Your task to perform on an android device: turn off location history Image 0: 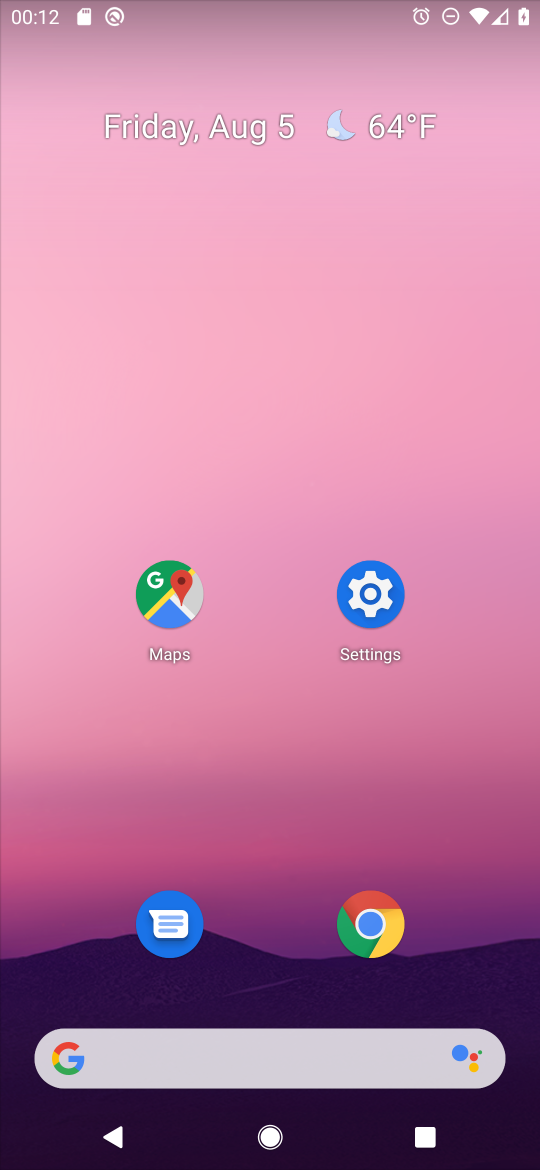
Step 0: click (185, 587)
Your task to perform on an android device: turn off location history Image 1: 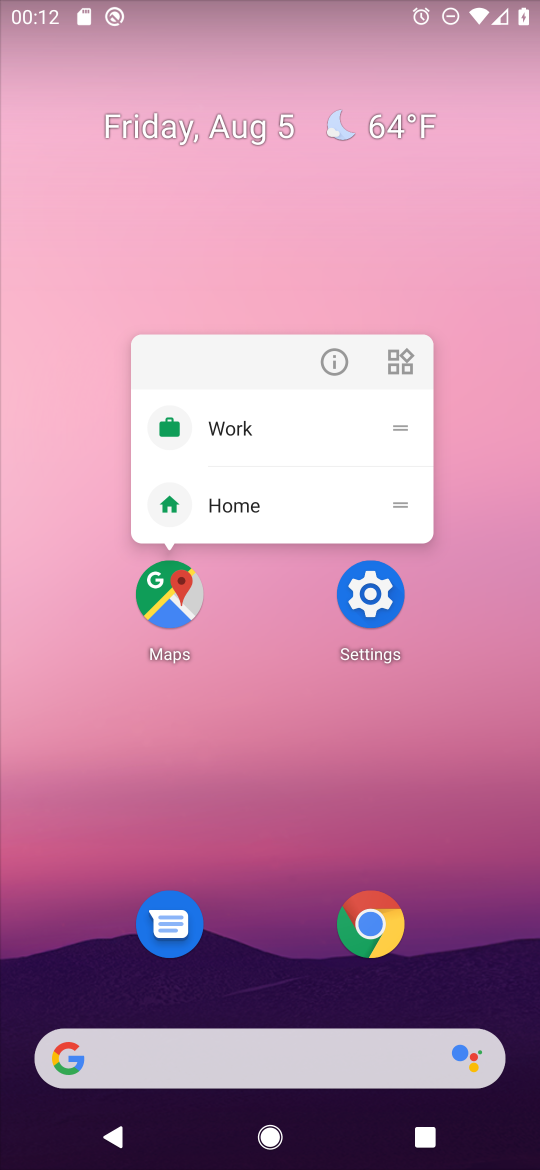
Step 1: click (173, 594)
Your task to perform on an android device: turn off location history Image 2: 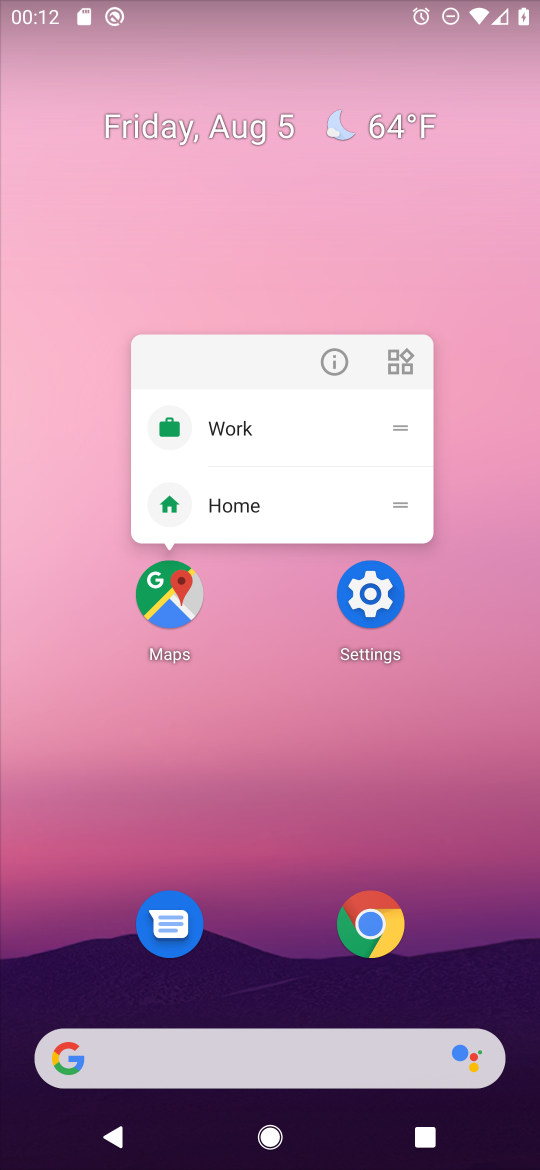
Step 2: click (171, 592)
Your task to perform on an android device: turn off location history Image 3: 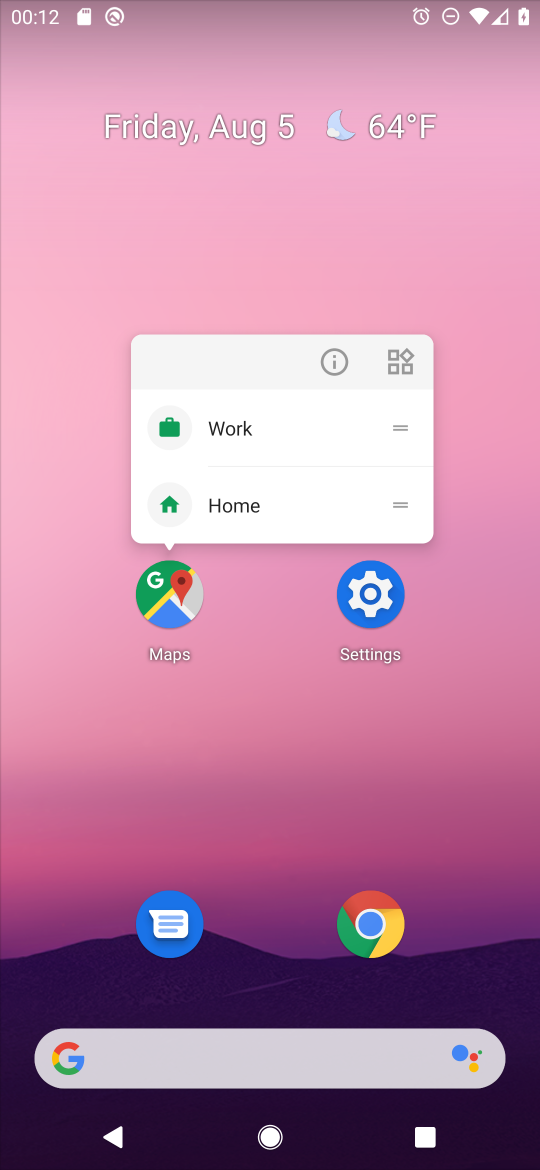
Step 3: click (171, 594)
Your task to perform on an android device: turn off location history Image 4: 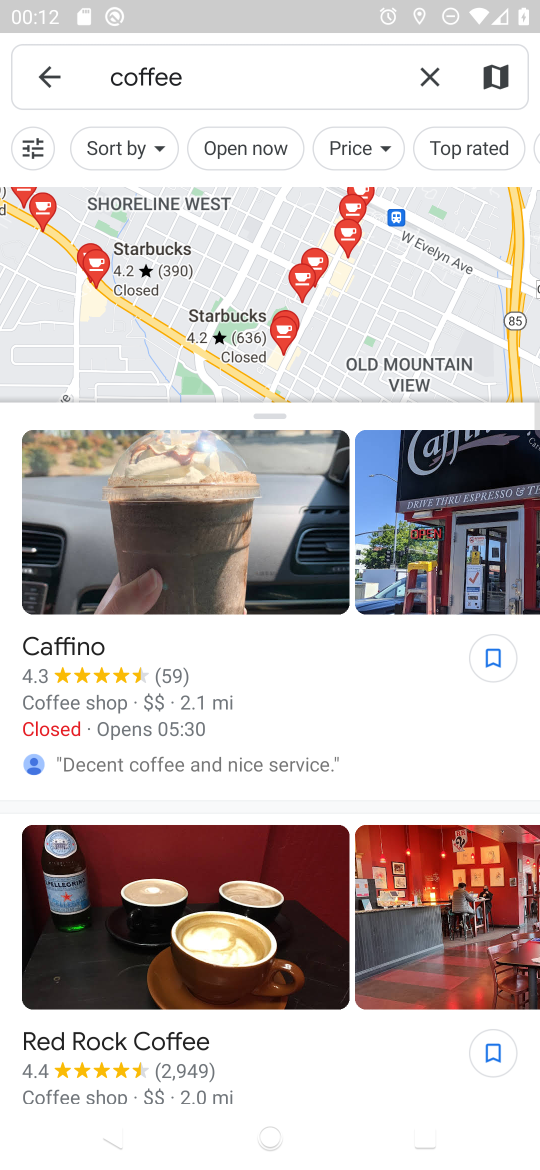
Step 4: click (51, 78)
Your task to perform on an android device: turn off location history Image 5: 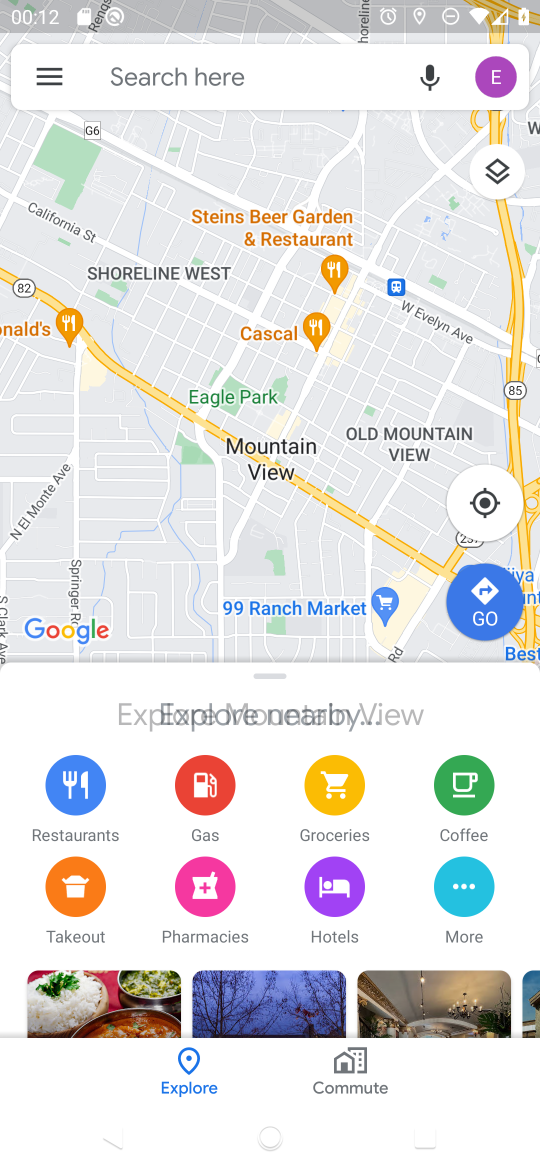
Step 5: click (51, 79)
Your task to perform on an android device: turn off location history Image 6: 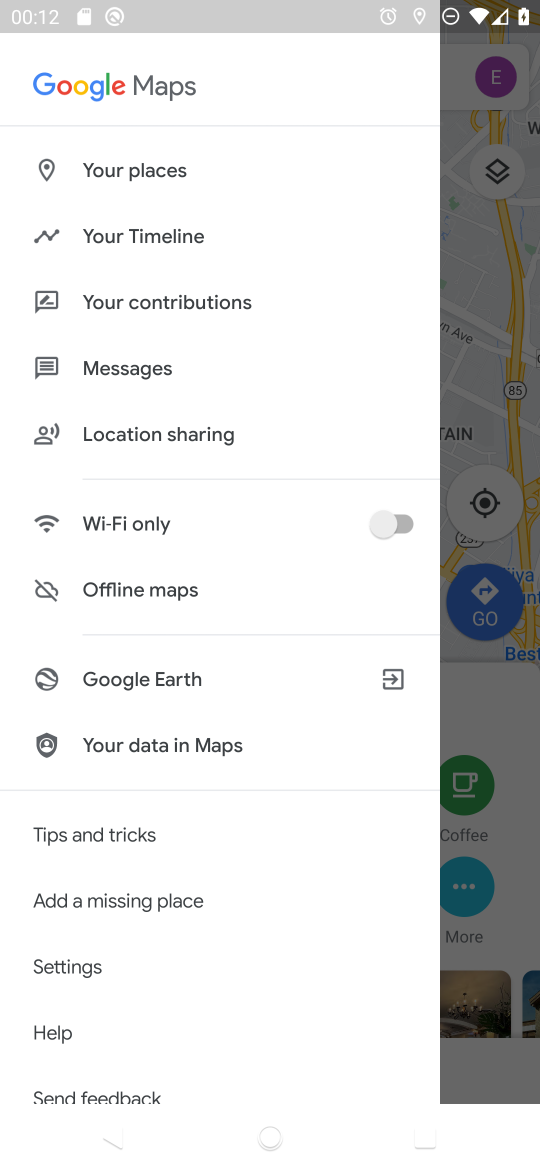
Step 6: click (143, 234)
Your task to perform on an android device: turn off location history Image 7: 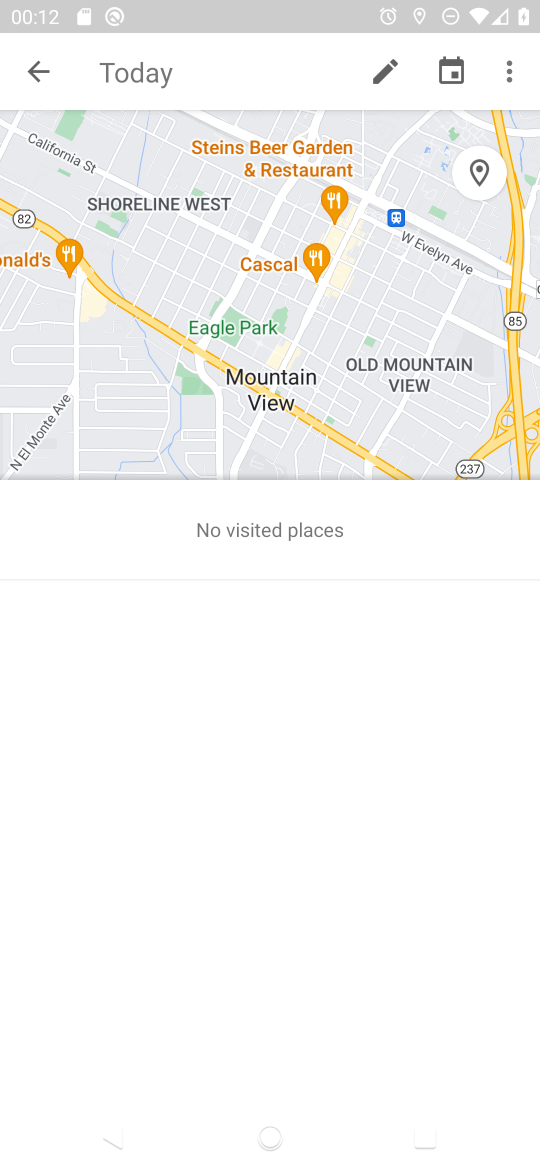
Step 7: click (514, 76)
Your task to perform on an android device: turn off location history Image 8: 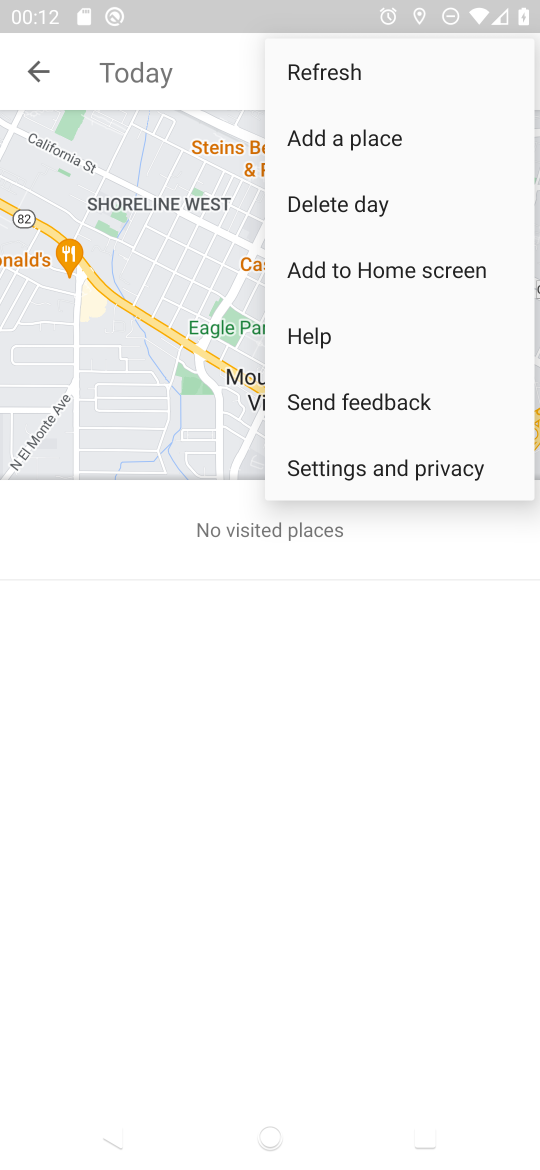
Step 8: click (316, 472)
Your task to perform on an android device: turn off location history Image 9: 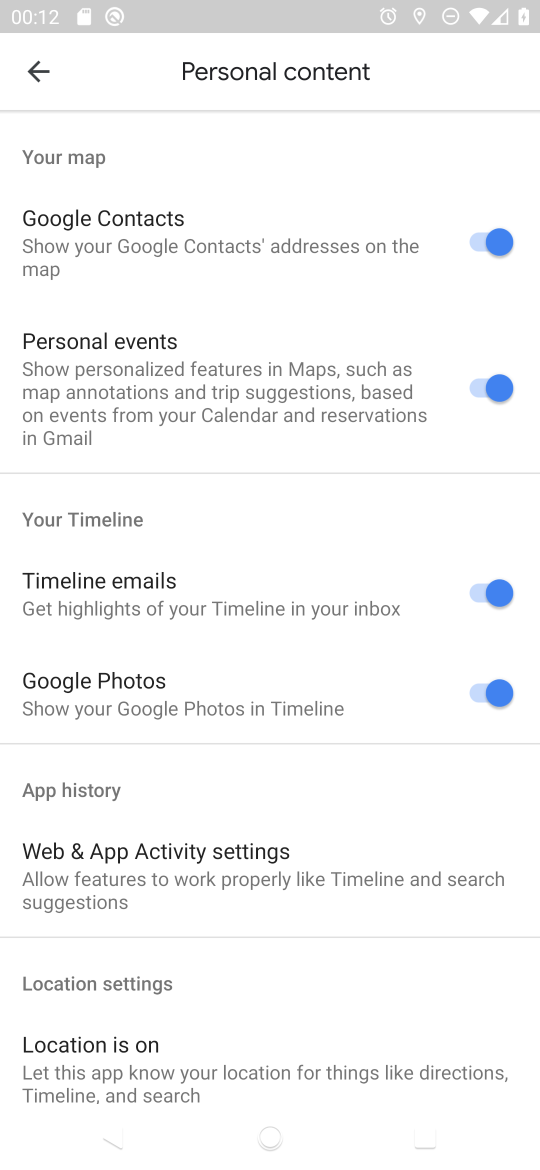
Step 9: drag from (195, 797) to (415, 288)
Your task to perform on an android device: turn off location history Image 10: 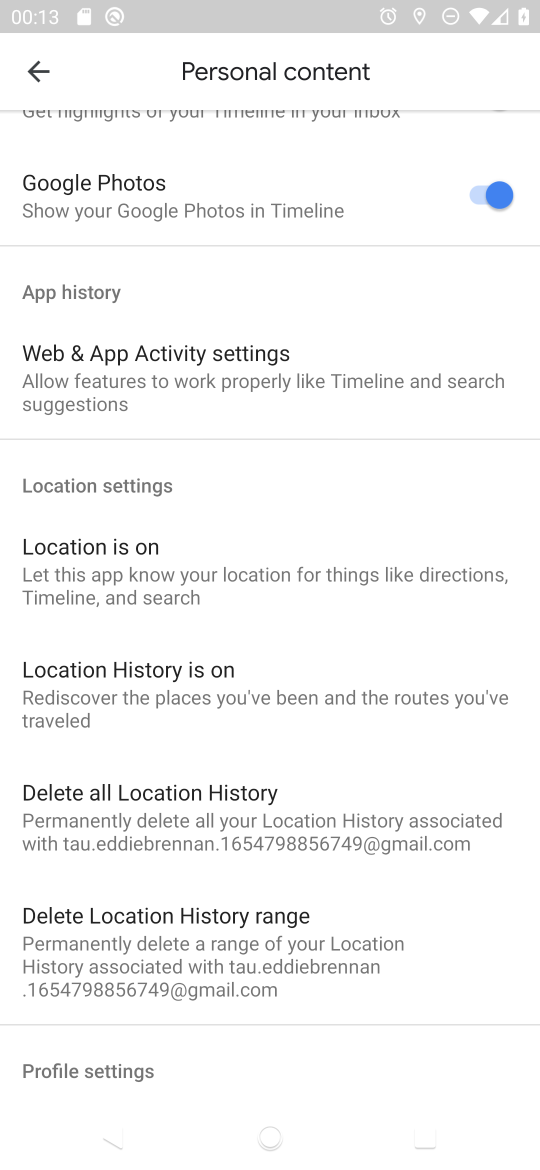
Step 10: click (207, 663)
Your task to perform on an android device: turn off location history Image 11: 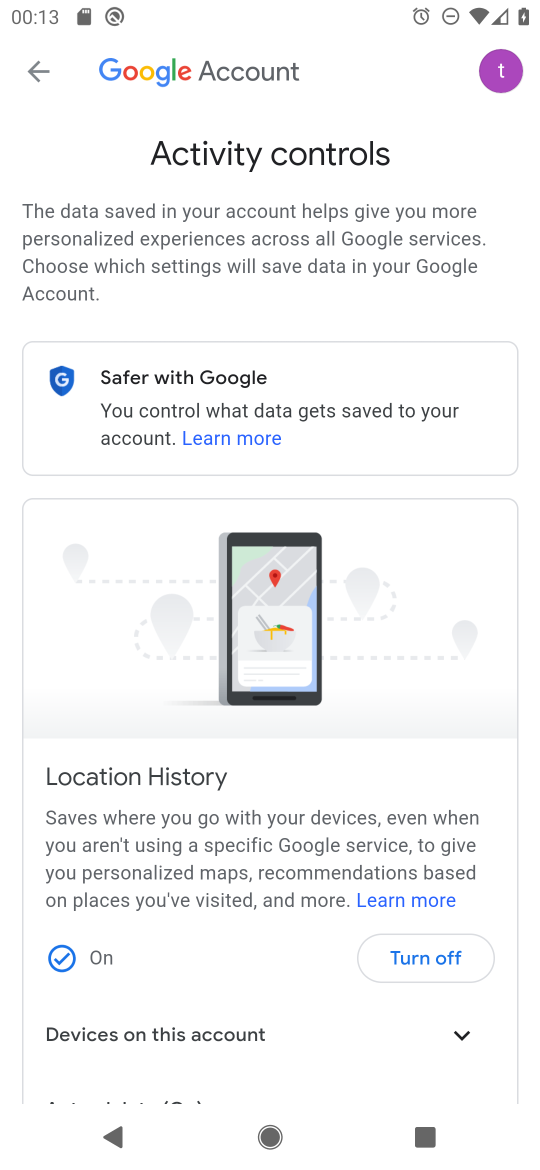
Step 11: drag from (269, 922) to (370, 353)
Your task to perform on an android device: turn off location history Image 12: 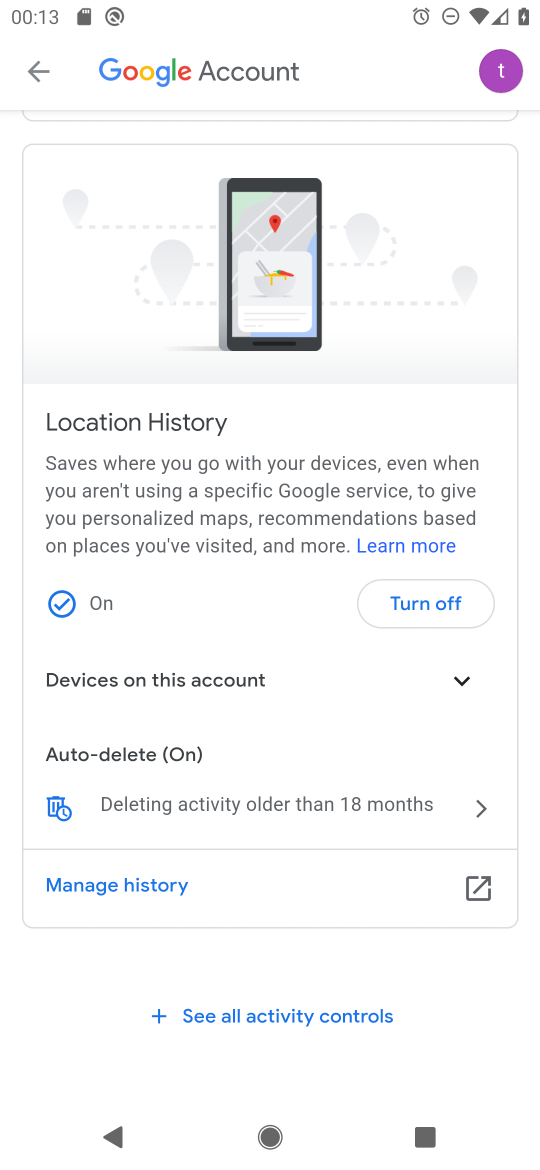
Step 12: click (426, 602)
Your task to perform on an android device: turn off location history Image 13: 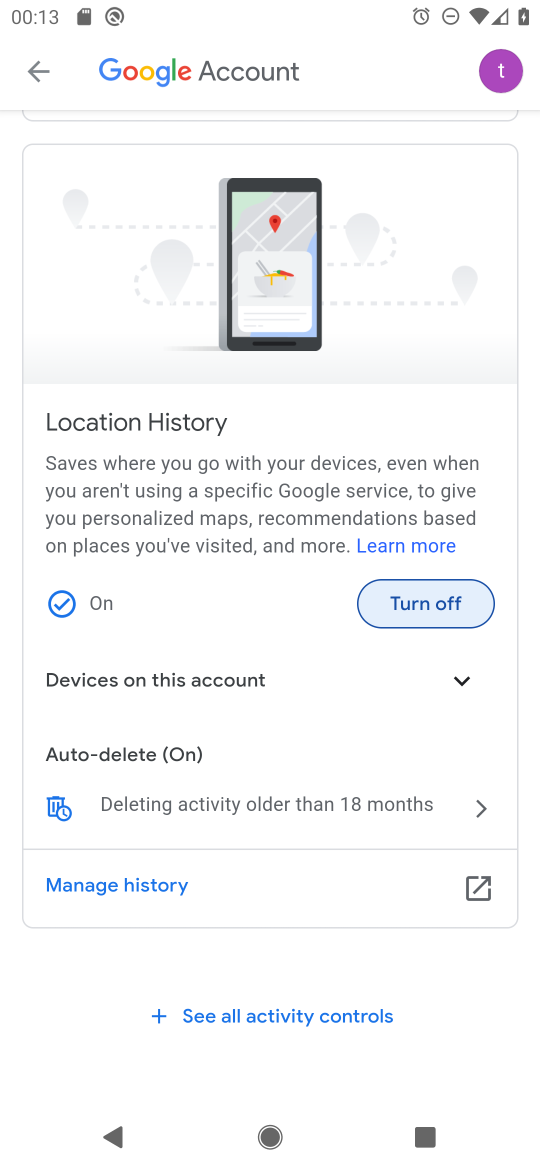
Step 13: click (428, 599)
Your task to perform on an android device: turn off location history Image 14: 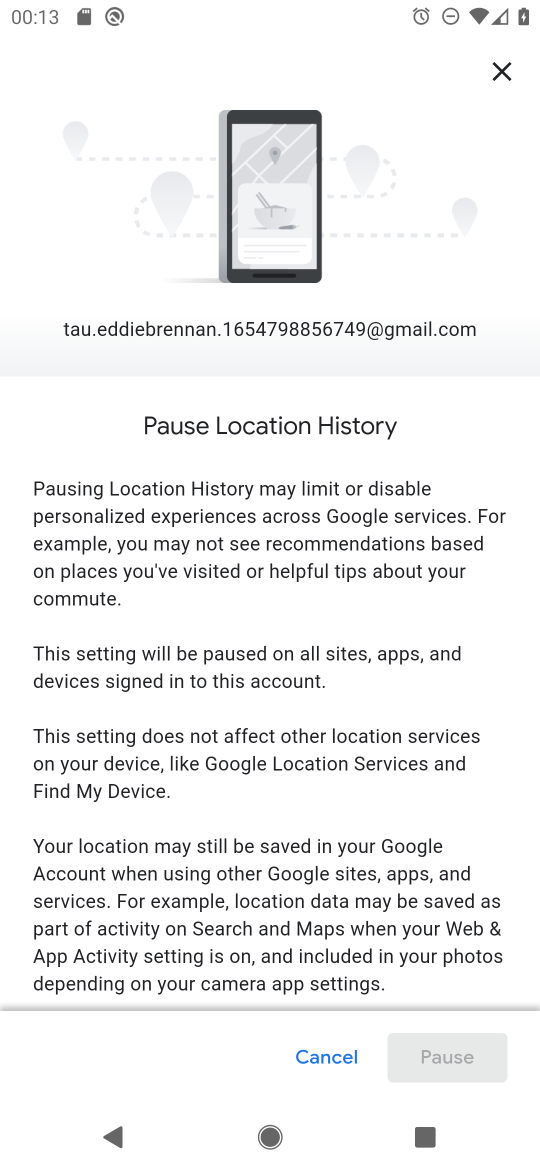
Step 14: drag from (344, 970) to (389, 154)
Your task to perform on an android device: turn off location history Image 15: 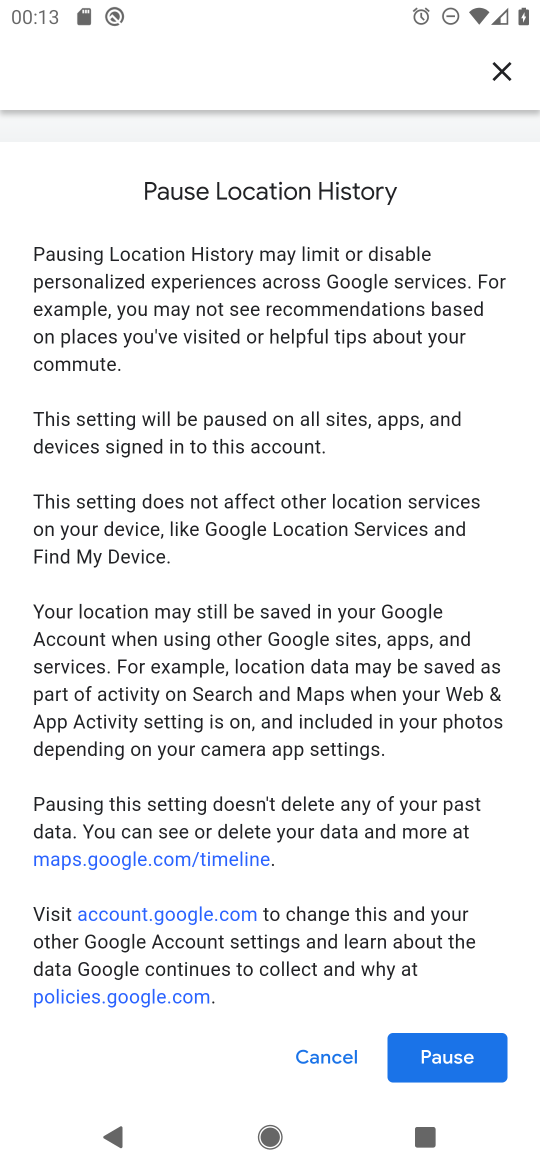
Step 15: click (446, 1054)
Your task to perform on an android device: turn off location history Image 16: 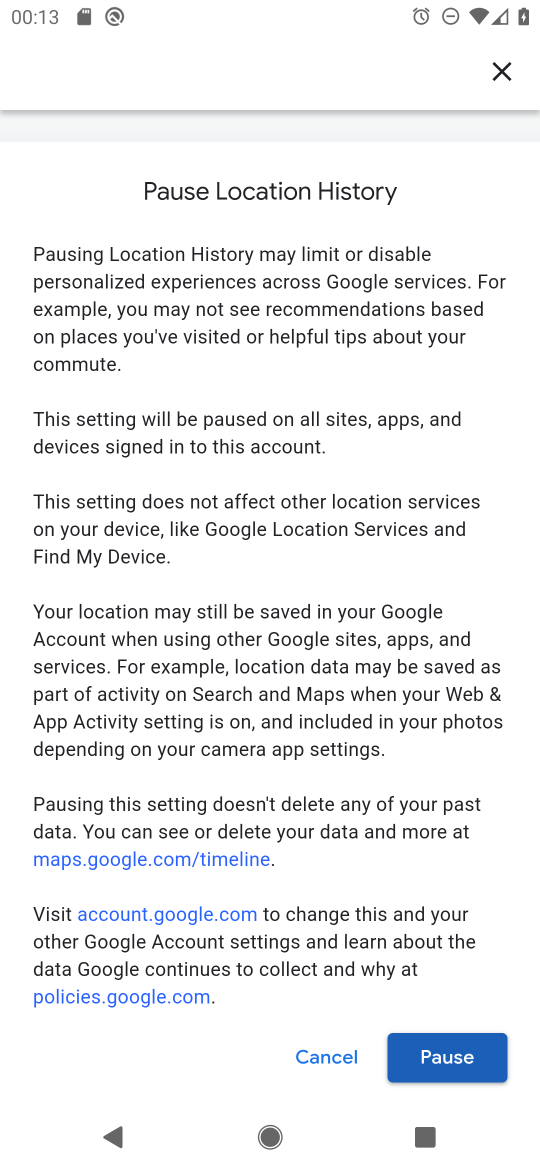
Step 16: click (440, 1065)
Your task to perform on an android device: turn off location history Image 17: 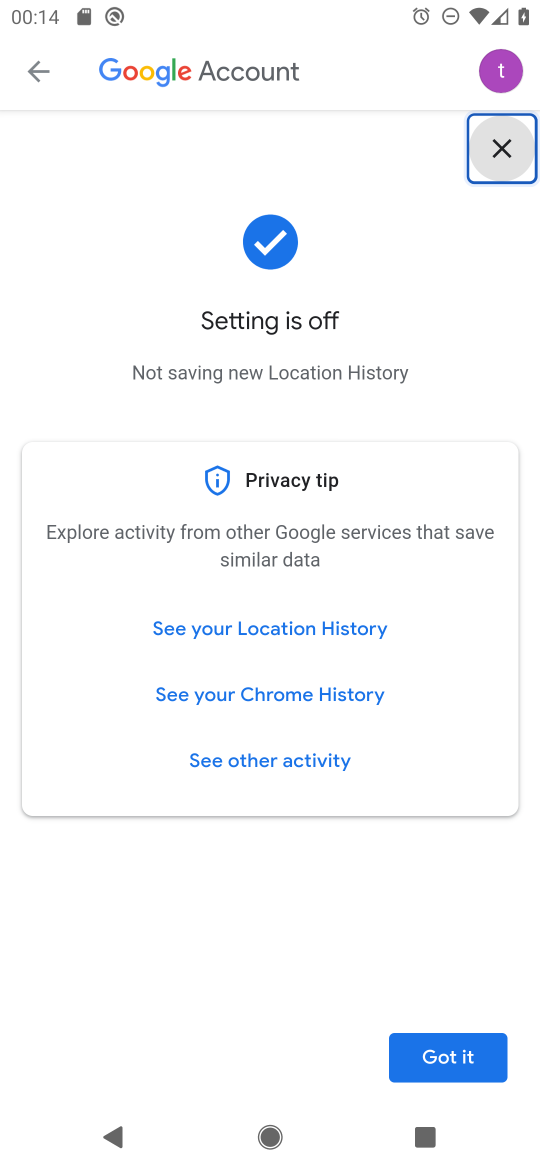
Step 17: click (434, 1048)
Your task to perform on an android device: turn off location history Image 18: 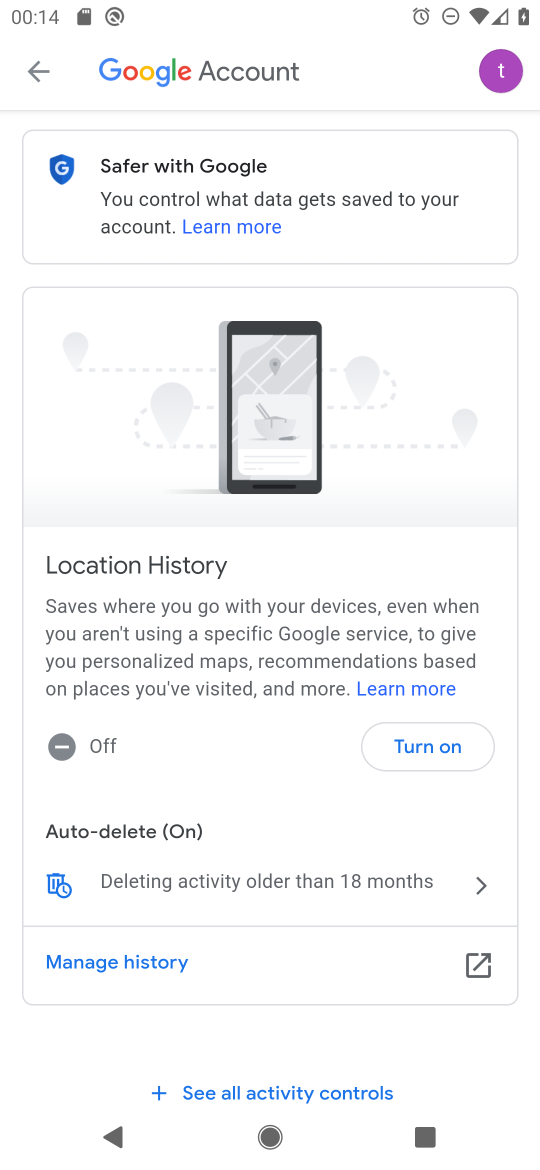
Step 18: task complete